Your task to perform on an android device: Open maps Image 0: 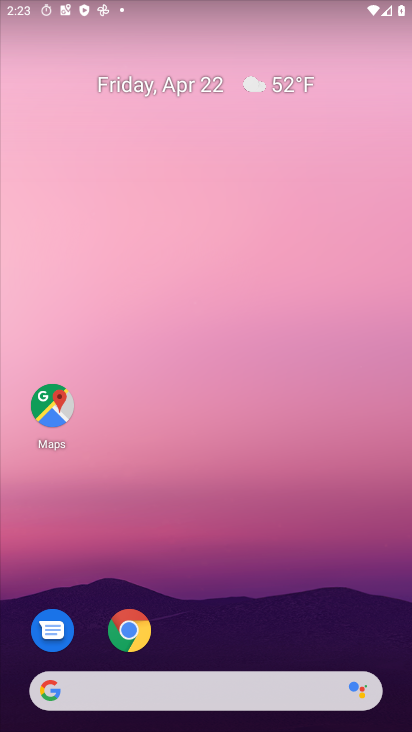
Step 0: drag from (323, 370) to (304, 245)
Your task to perform on an android device: Open maps Image 1: 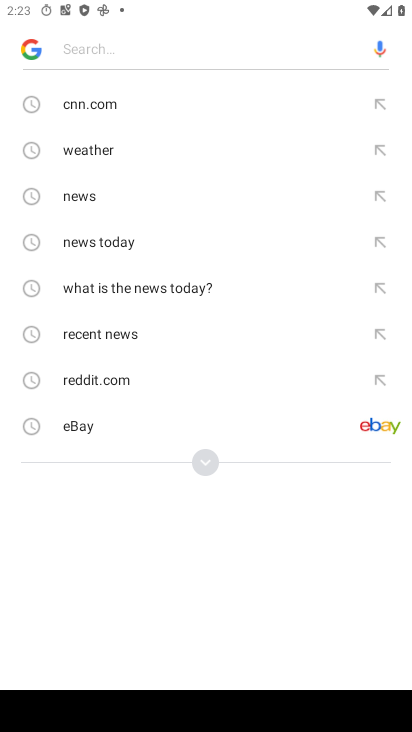
Step 1: press back button
Your task to perform on an android device: Open maps Image 2: 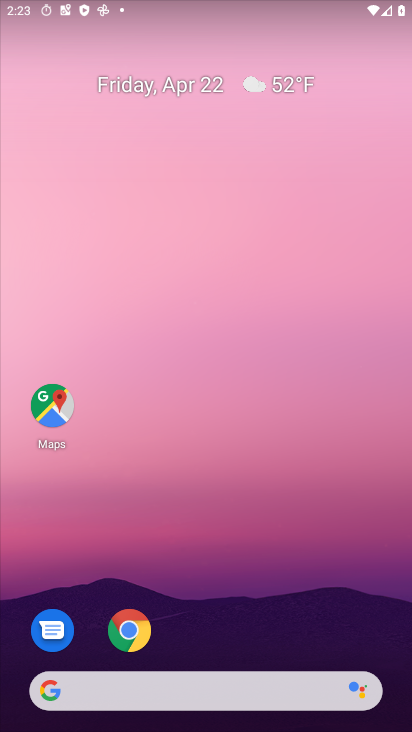
Step 2: drag from (336, 536) to (323, 120)
Your task to perform on an android device: Open maps Image 3: 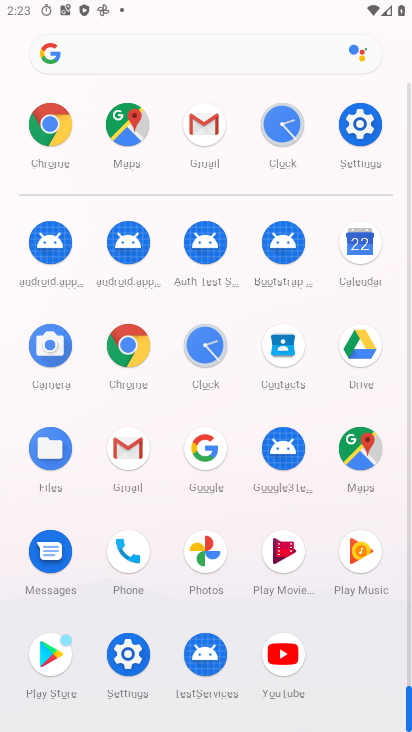
Step 3: click (125, 125)
Your task to perform on an android device: Open maps Image 4: 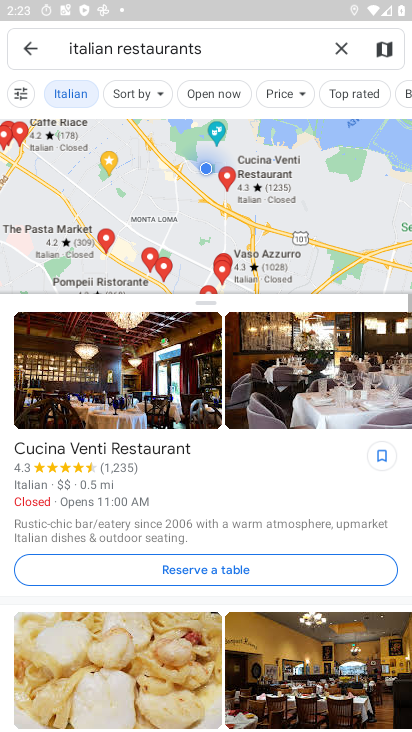
Step 4: task complete